Your task to perform on an android device: find snoozed emails in the gmail app Image 0: 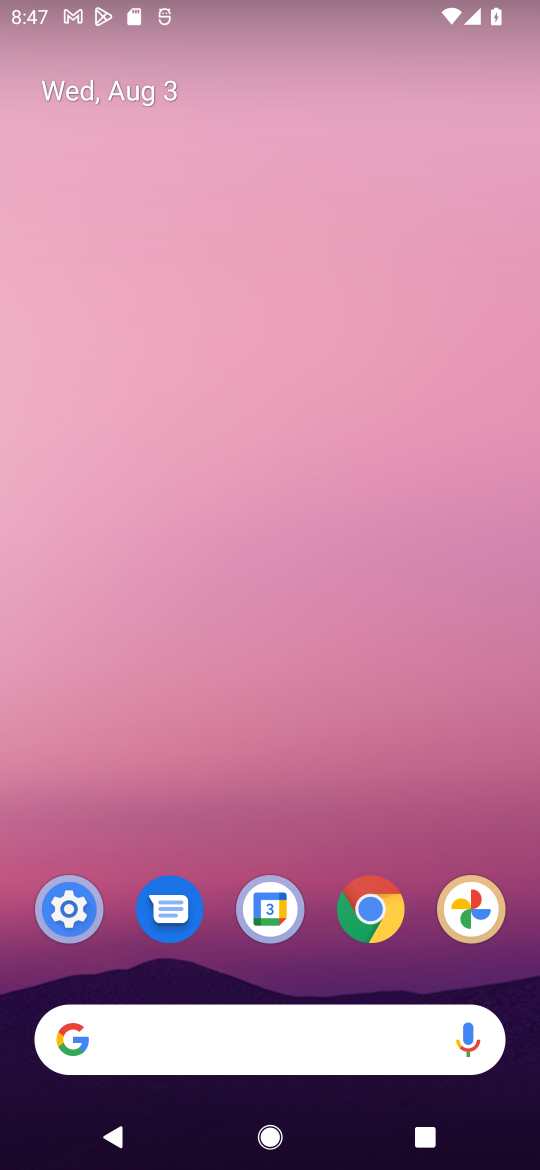
Step 0: drag from (433, 825) to (449, 296)
Your task to perform on an android device: find snoozed emails in the gmail app Image 1: 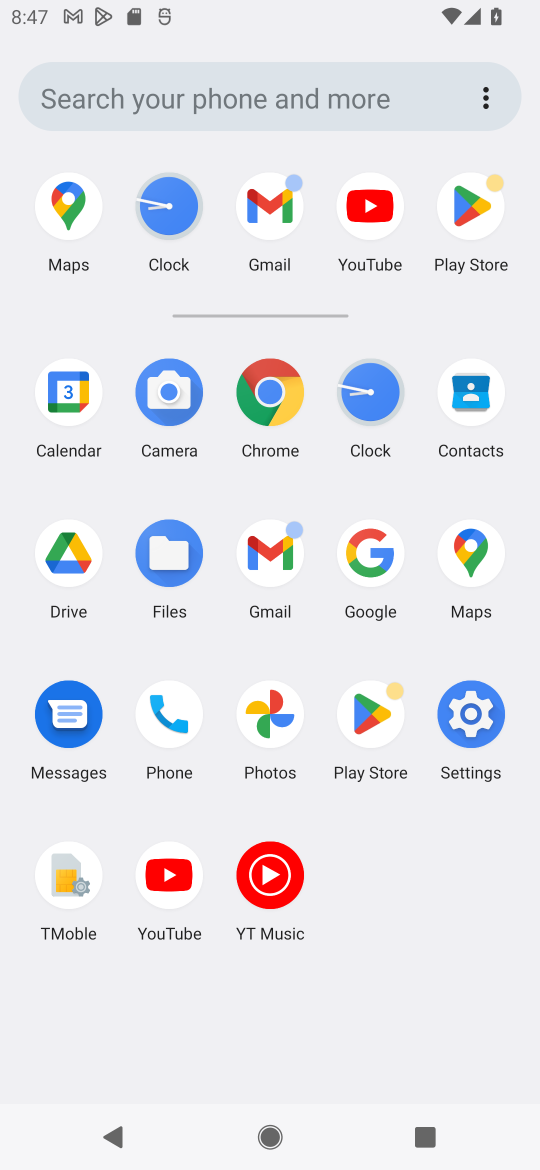
Step 1: click (273, 555)
Your task to perform on an android device: find snoozed emails in the gmail app Image 2: 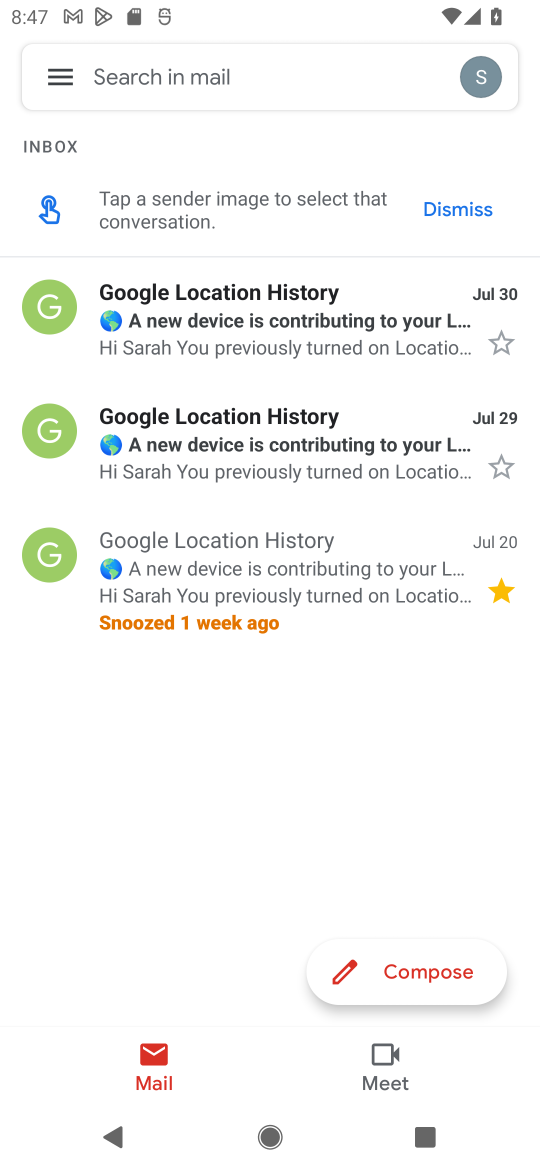
Step 2: click (62, 76)
Your task to perform on an android device: find snoozed emails in the gmail app Image 3: 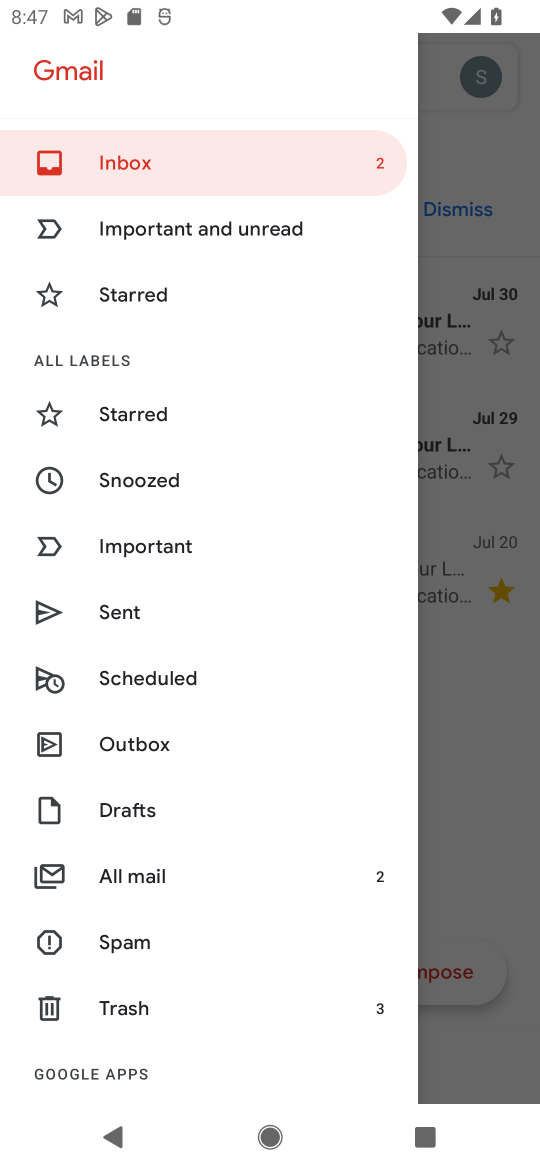
Step 3: drag from (300, 781) to (300, 673)
Your task to perform on an android device: find snoozed emails in the gmail app Image 4: 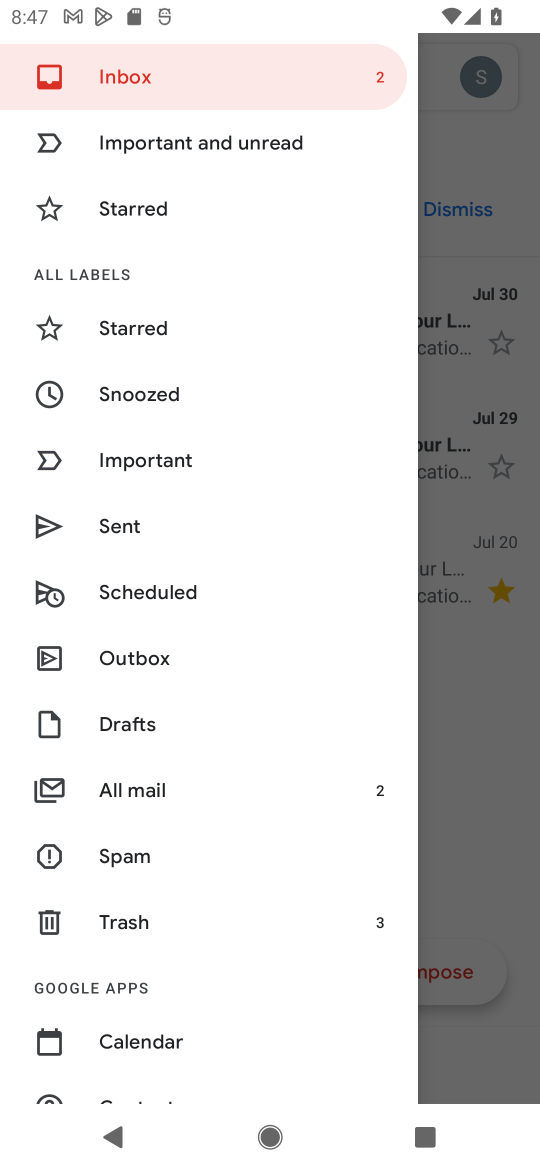
Step 4: drag from (243, 857) to (273, 691)
Your task to perform on an android device: find snoozed emails in the gmail app Image 5: 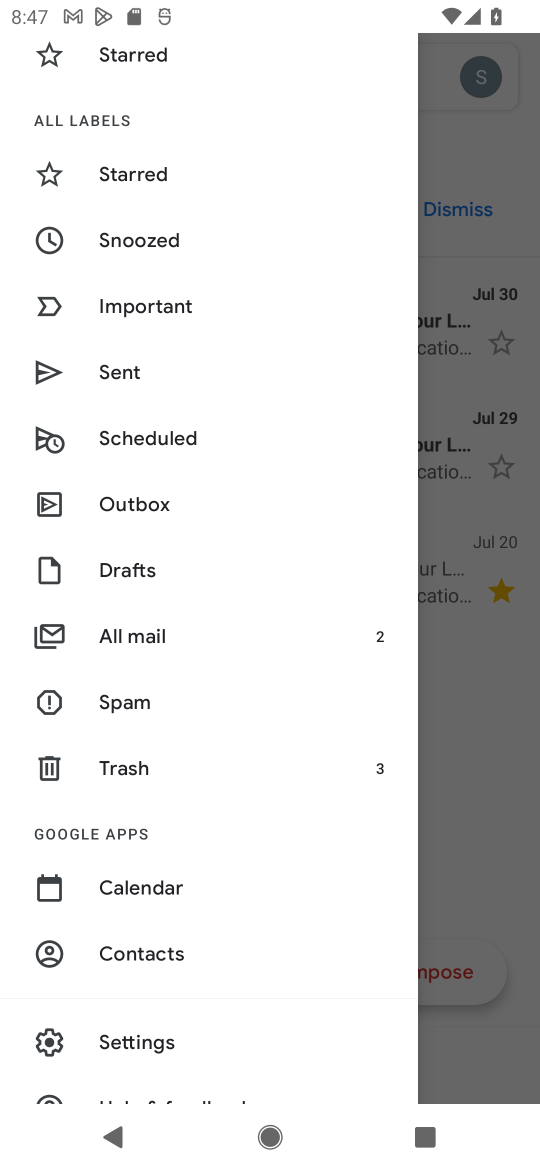
Step 5: drag from (274, 858) to (282, 674)
Your task to perform on an android device: find snoozed emails in the gmail app Image 6: 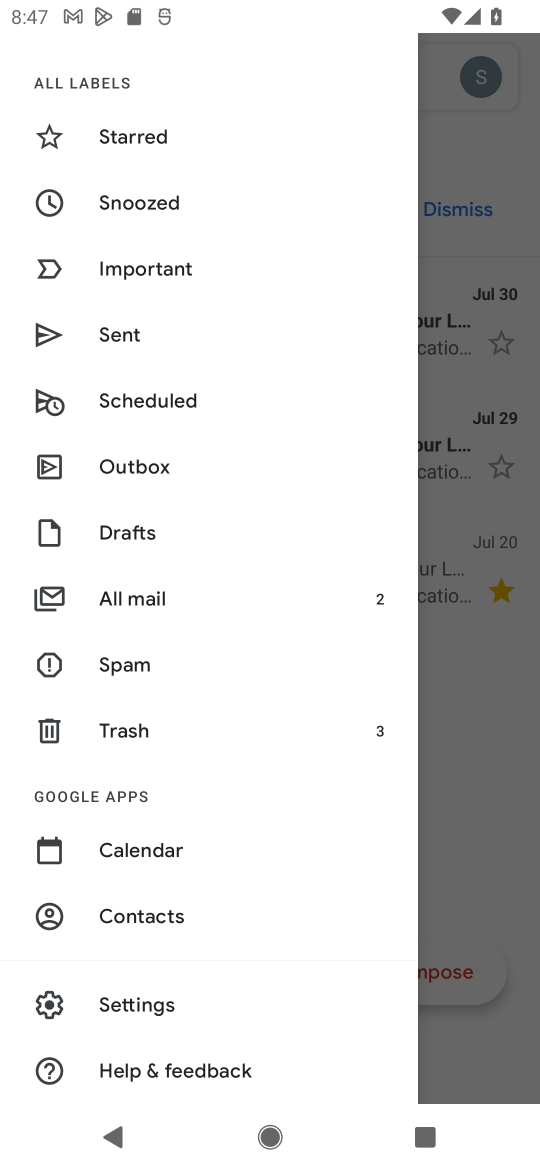
Step 6: drag from (261, 572) to (274, 737)
Your task to perform on an android device: find snoozed emails in the gmail app Image 7: 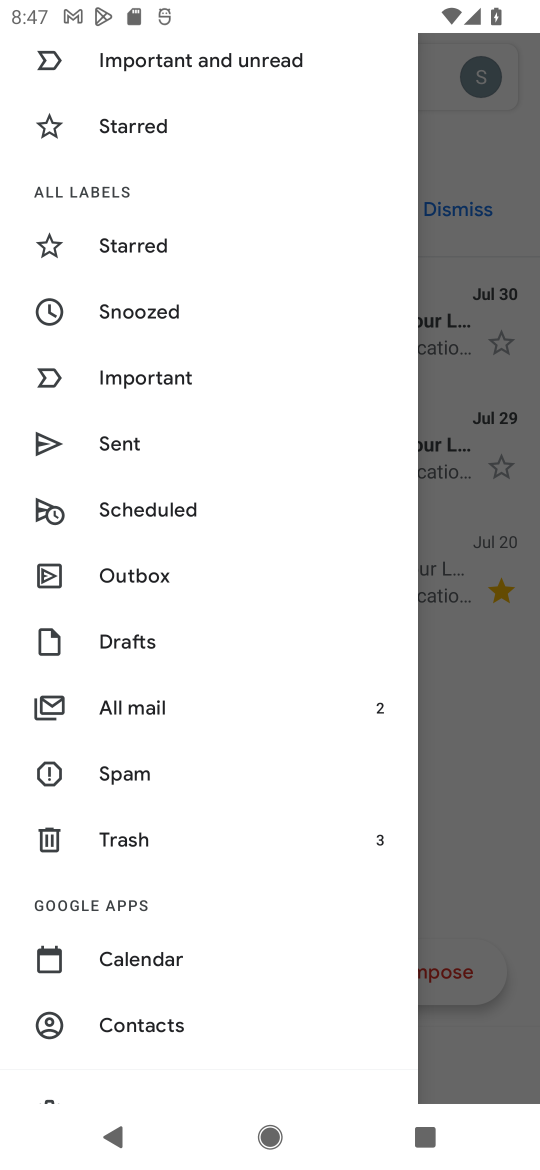
Step 7: drag from (275, 518) to (305, 718)
Your task to perform on an android device: find snoozed emails in the gmail app Image 8: 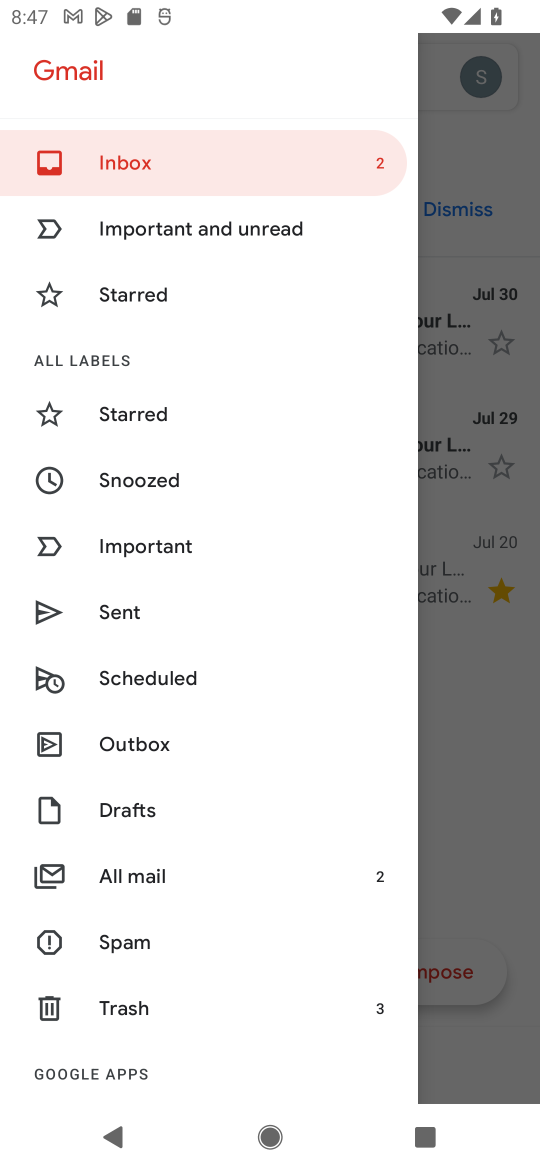
Step 8: drag from (286, 360) to (285, 631)
Your task to perform on an android device: find snoozed emails in the gmail app Image 9: 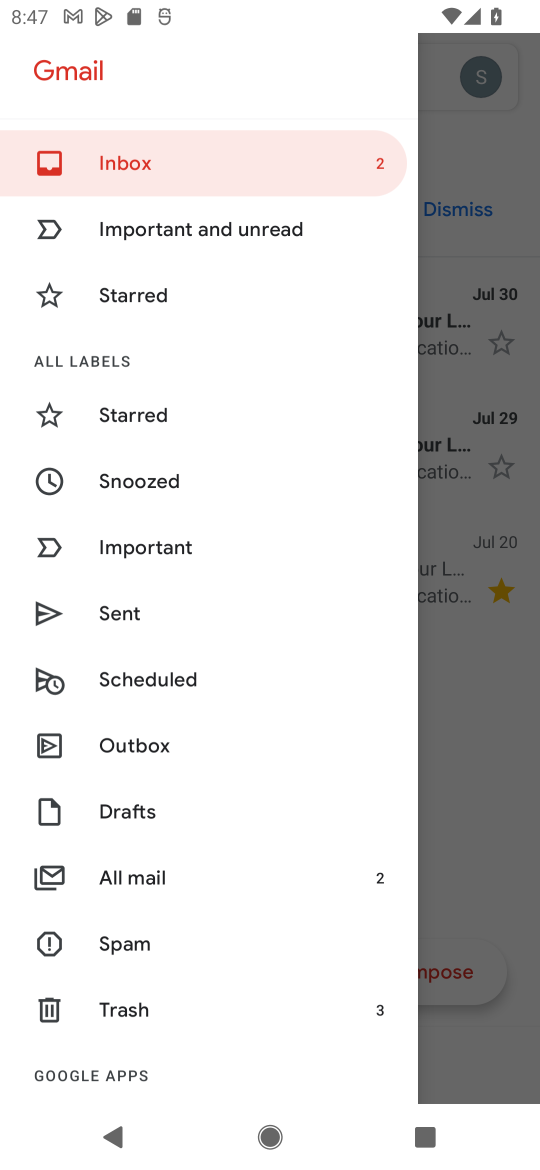
Step 9: click (225, 495)
Your task to perform on an android device: find snoozed emails in the gmail app Image 10: 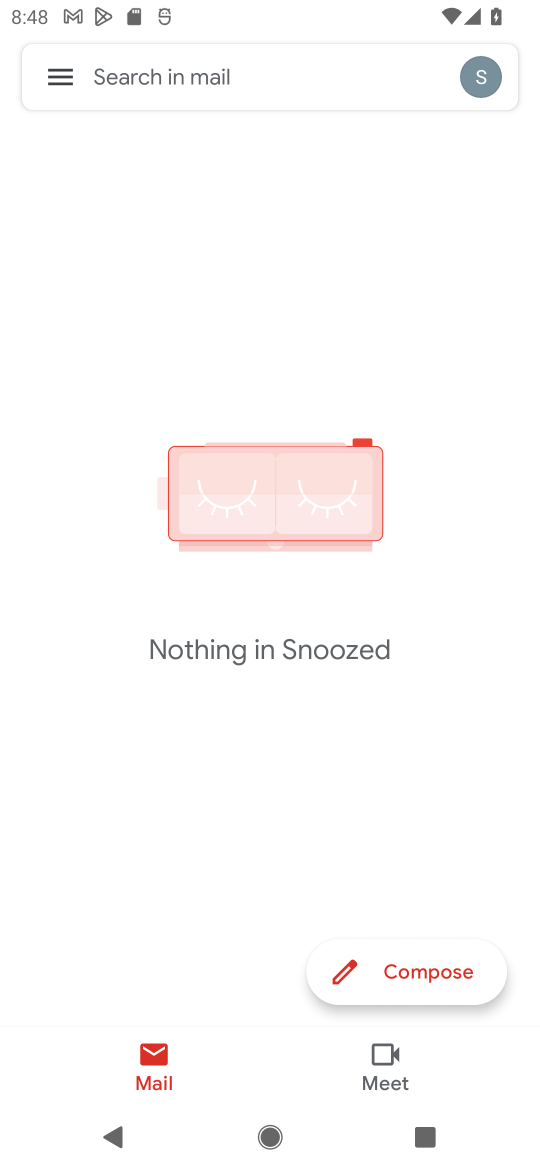
Step 10: task complete